Your task to perform on an android device: Open display settings Image 0: 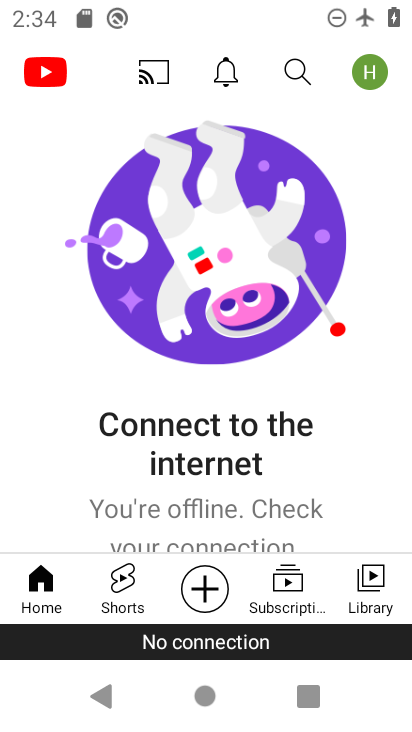
Step 0: press home button
Your task to perform on an android device: Open display settings Image 1: 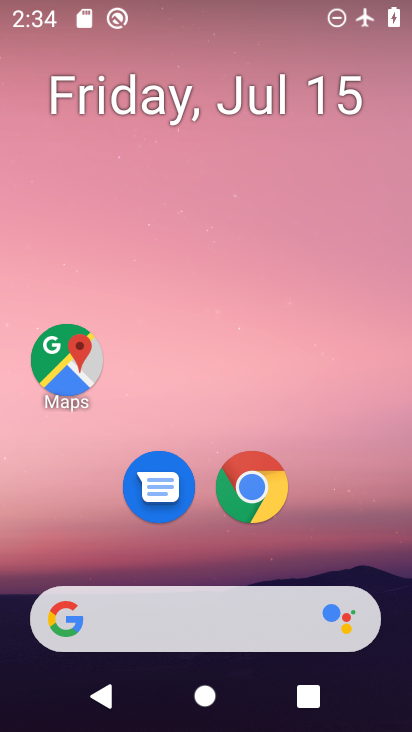
Step 1: drag from (246, 565) to (363, 92)
Your task to perform on an android device: Open display settings Image 2: 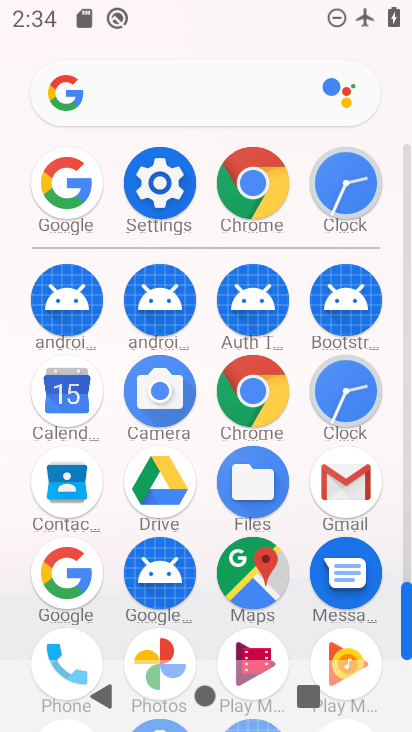
Step 2: click (234, 189)
Your task to perform on an android device: Open display settings Image 3: 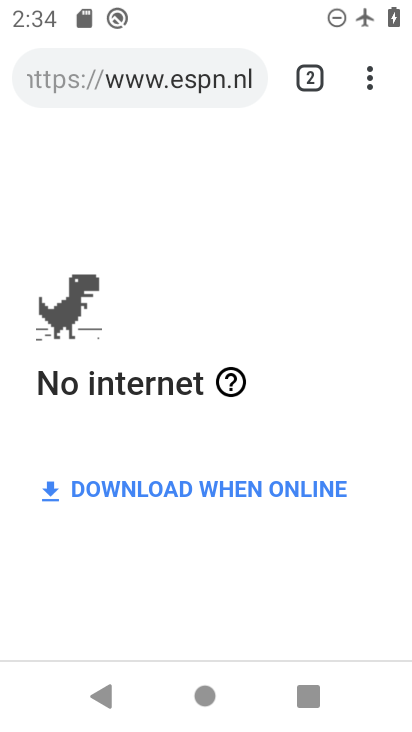
Step 3: press home button
Your task to perform on an android device: Open display settings Image 4: 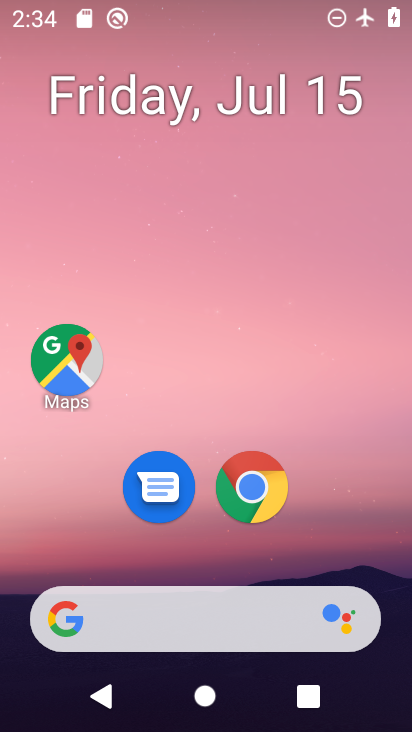
Step 4: drag from (157, 547) to (201, 109)
Your task to perform on an android device: Open display settings Image 5: 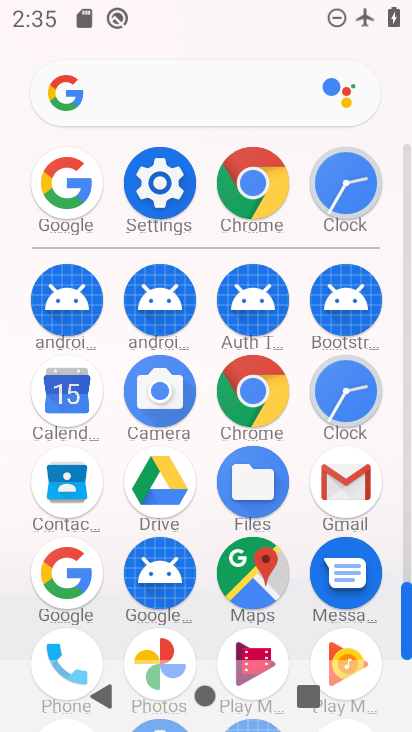
Step 5: click (167, 214)
Your task to perform on an android device: Open display settings Image 6: 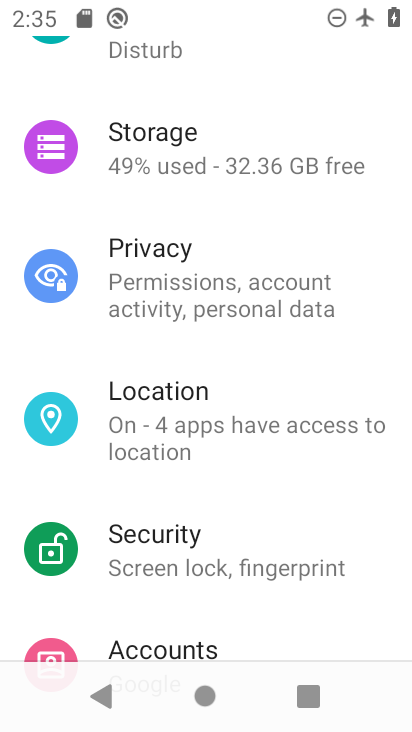
Step 6: drag from (177, 312) to (153, 587)
Your task to perform on an android device: Open display settings Image 7: 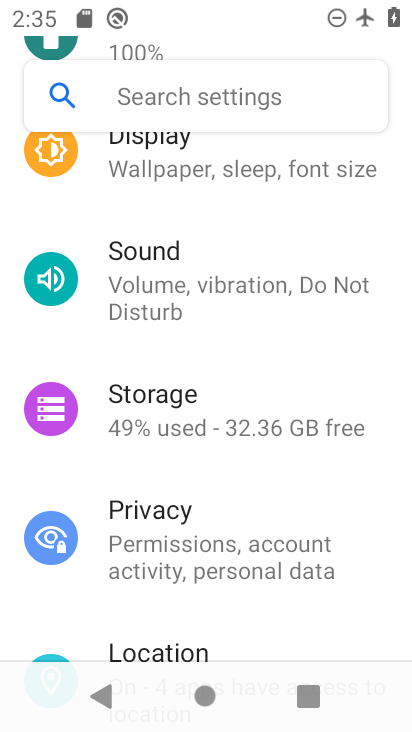
Step 7: drag from (184, 326) to (167, 477)
Your task to perform on an android device: Open display settings Image 8: 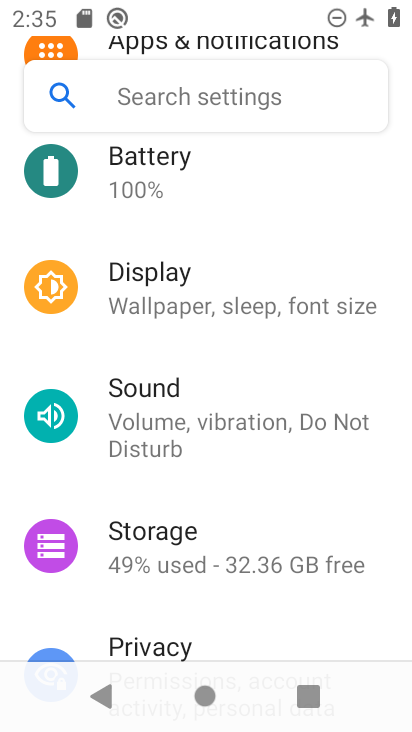
Step 8: click (161, 308)
Your task to perform on an android device: Open display settings Image 9: 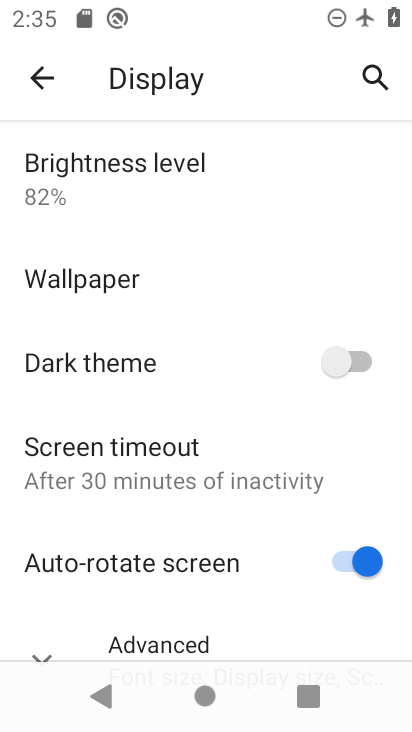
Step 9: task complete